Your task to perform on an android device: Open wifi settings Image 0: 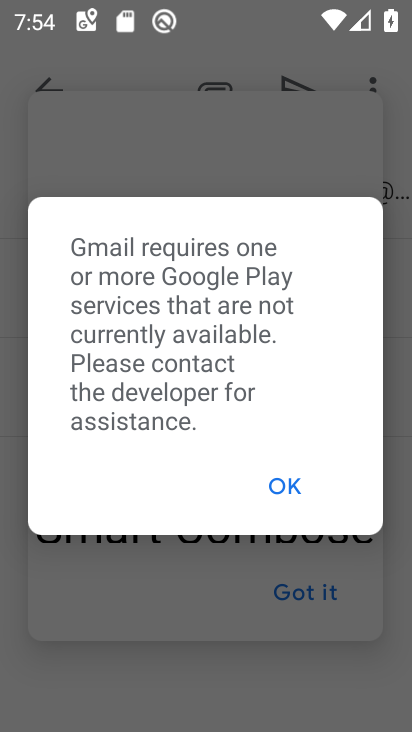
Step 0: press home button
Your task to perform on an android device: Open wifi settings Image 1: 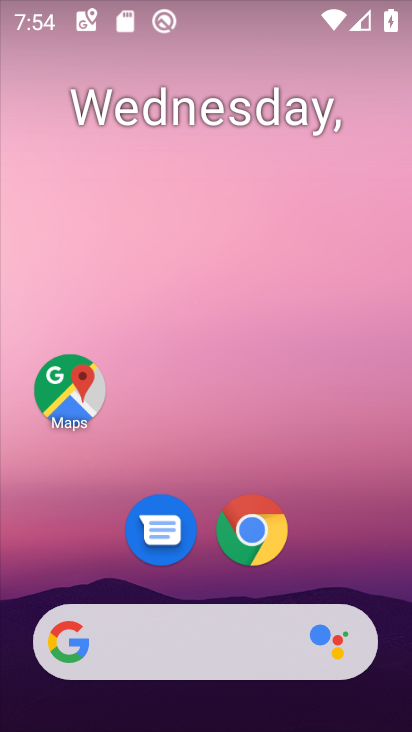
Step 1: drag from (399, 634) to (270, 89)
Your task to perform on an android device: Open wifi settings Image 2: 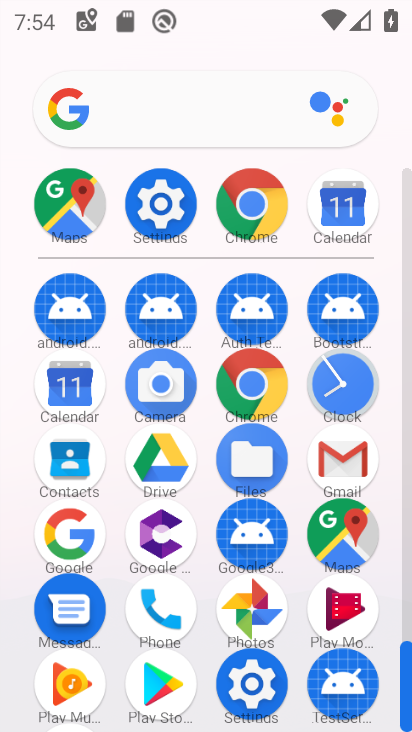
Step 2: click (149, 214)
Your task to perform on an android device: Open wifi settings Image 3: 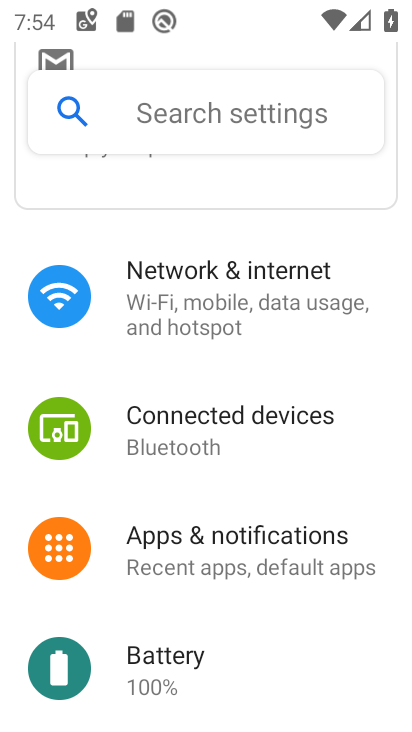
Step 3: drag from (171, 247) to (204, 678)
Your task to perform on an android device: Open wifi settings Image 4: 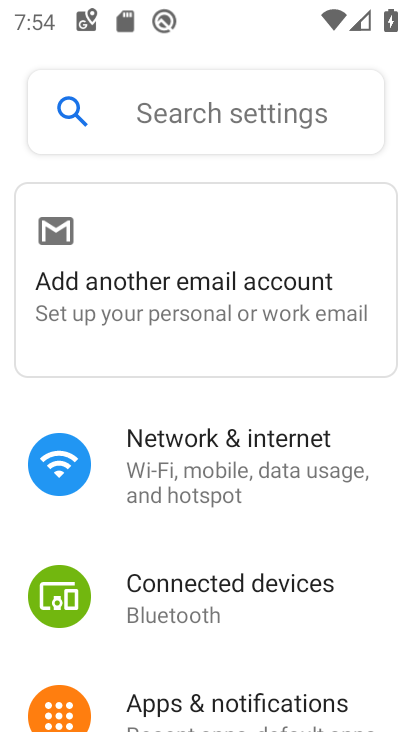
Step 4: click (203, 510)
Your task to perform on an android device: Open wifi settings Image 5: 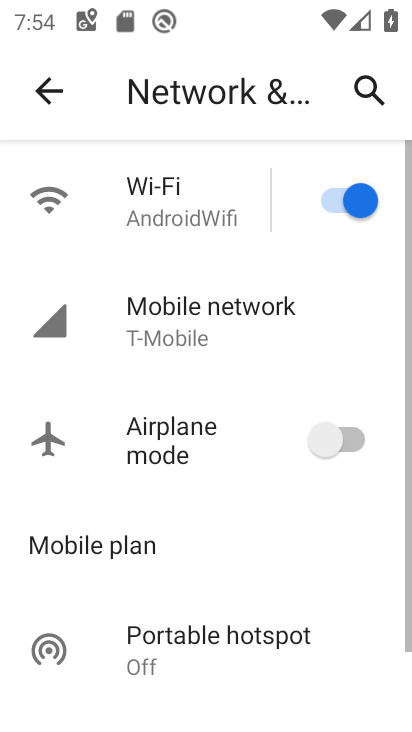
Step 5: click (178, 223)
Your task to perform on an android device: Open wifi settings Image 6: 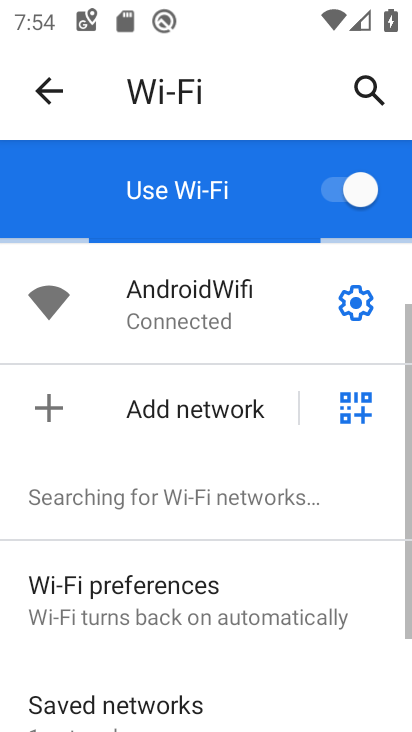
Step 6: task complete